Your task to perform on an android device: change the clock display to digital Image 0: 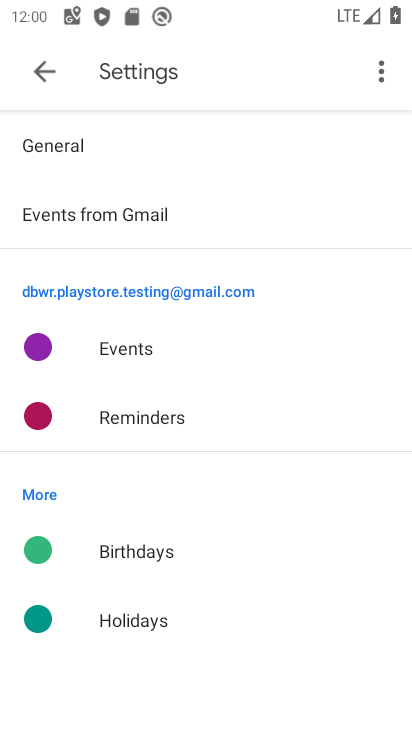
Step 0: drag from (188, 594) to (209, 278)
Your task to perform on an android device: change the clock display to digital Image 1: 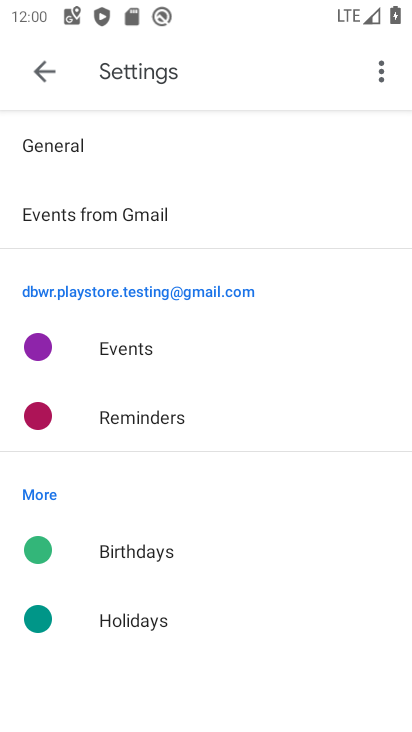
Step 1: press home button
Your task to perform on an android device: change the clock display to digital Image 2: 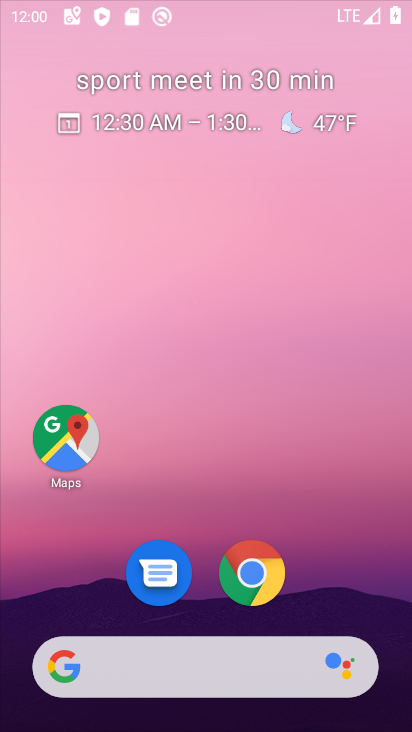
Step 2: drag from (215, 607) to (247, 193)
Your task to perform on an android device: change the clock display to digital Image 3: 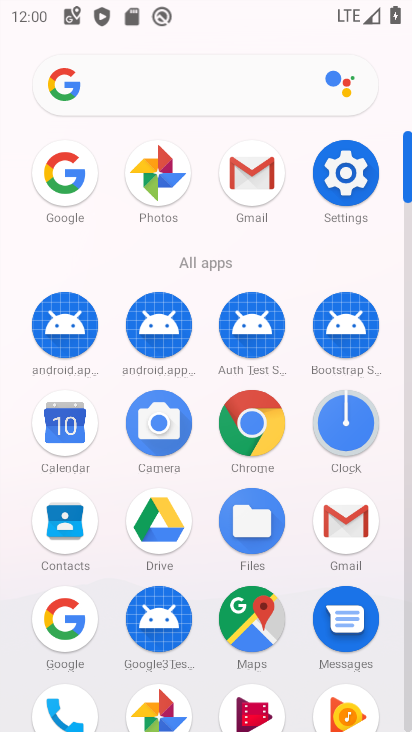
Step 3: click (342, 428)
Your task to perform on an android device: change the clock display to digital Image 4: 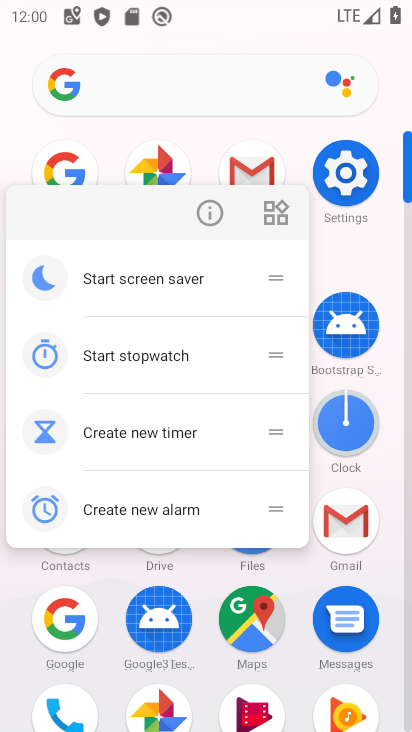
Step 4: click (205, 219)
Your task to perform on an android device: change the clock display to digital Image 5: 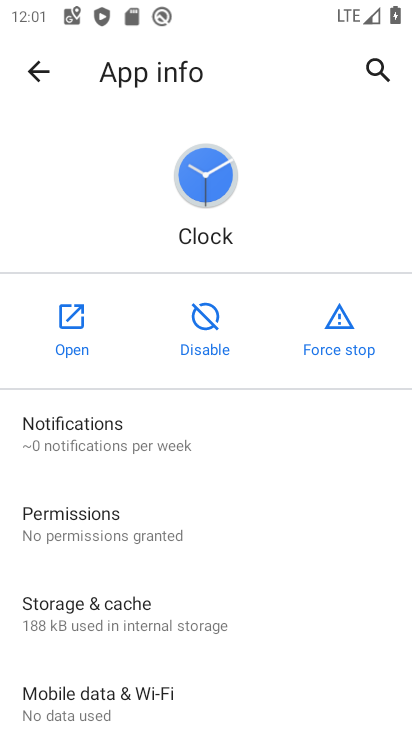
Step 5: click (51, 326)
Your task to perform on an android device: change the clock display to digital Image 6: 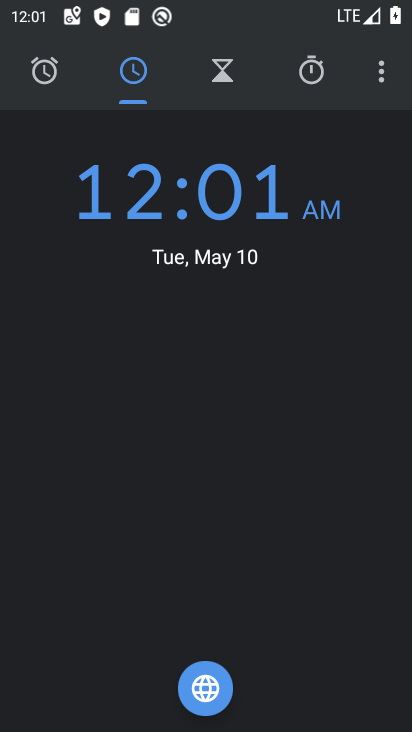
Step 6: click (383, 82)
Your task to perform on an android device: change the clock display to digital Image 7: 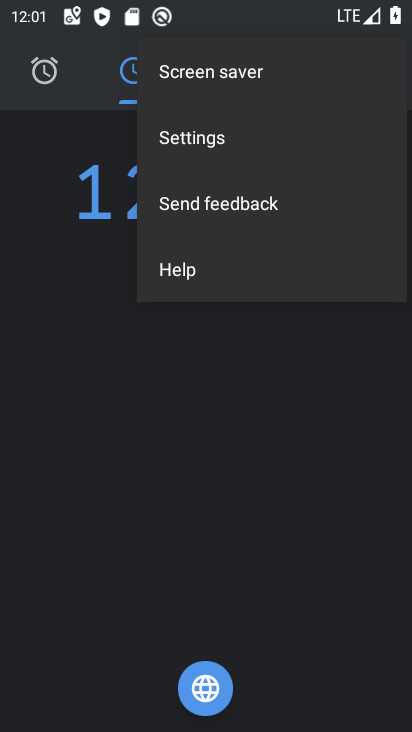
Step 7: click (220, 151)
Your task to perform on an android device: change the clock display to digital Image 8: 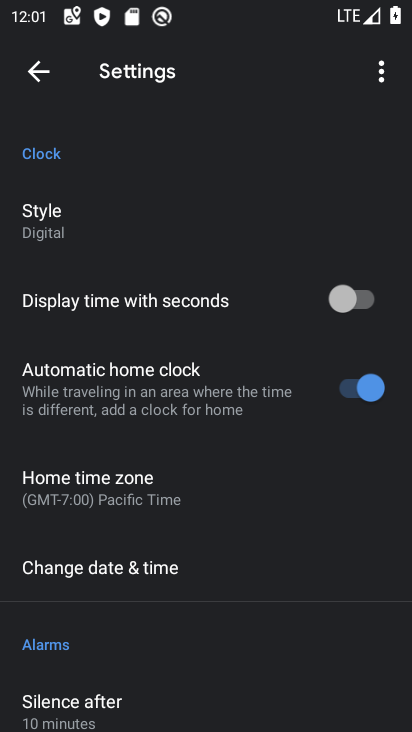
Step 8: click (91, 246)
Your task to perform on an android device: change the clock display to digital Image 9: 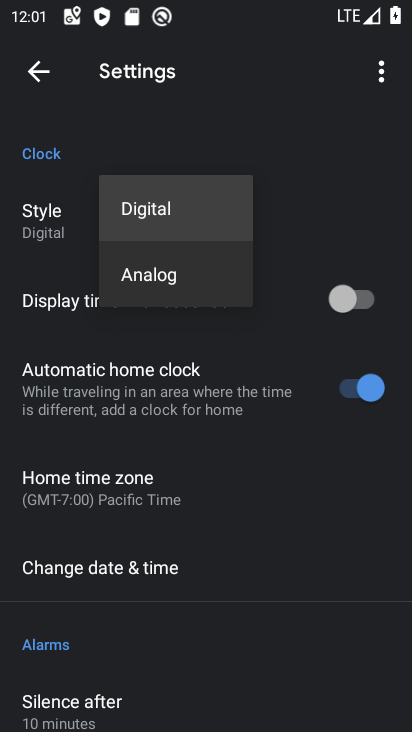
Step 9: click (174, 215)
Your task to perform on an android device: change the clock display to digital Image 10: 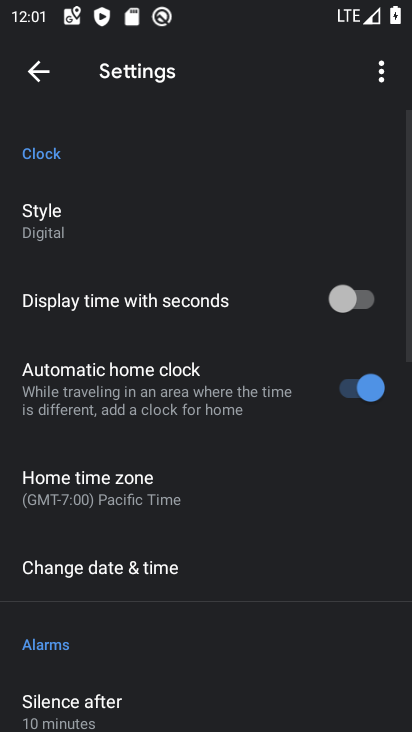
Step 10: task complete